Your task to perform on an android device: open chrome and create a bookmark for the current page Image 0: 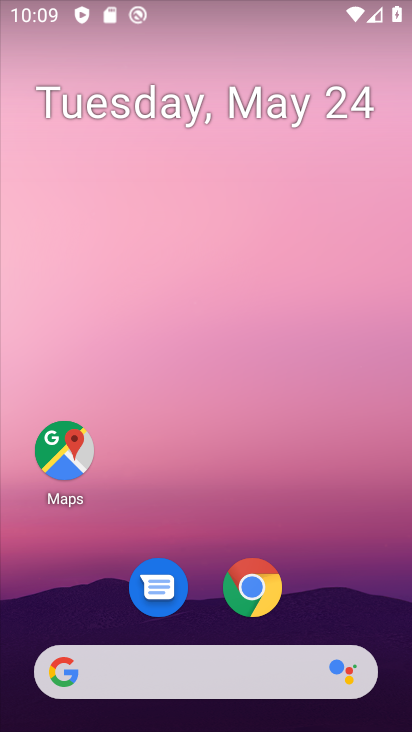
Step 0: press home button
Your task to perform on an android device: open chrome and create a bookmark for the current page Image 1: 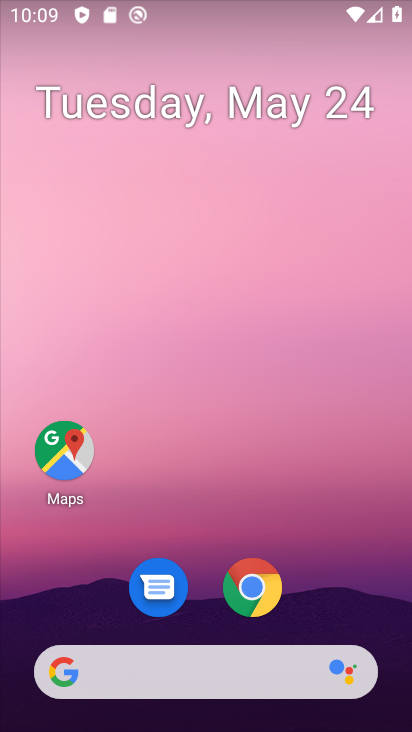
Step 1: click (275, 588)
Your task to perform on an android device: open chrome and create a bookmark for the current page Image 2: 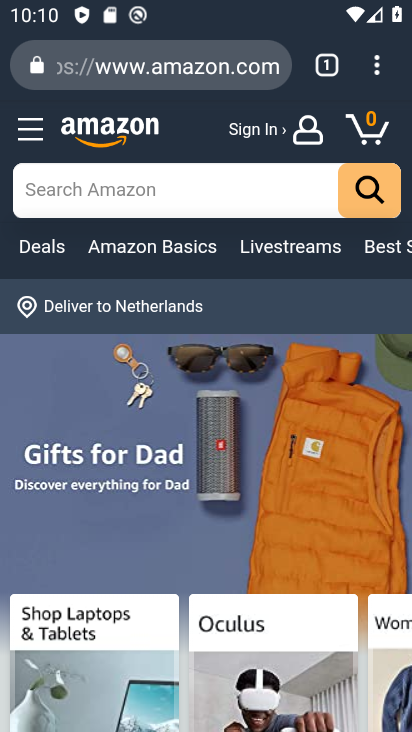
Step 2: task complete